Your task to perform on an android device: turn on bluetooth scan Image 0: 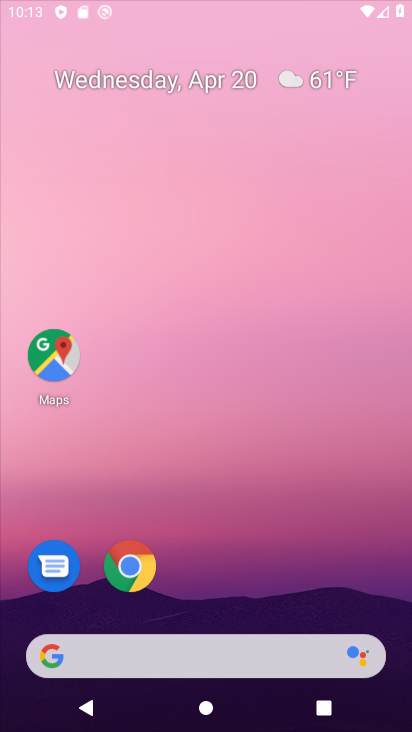
Step 0: drag from (270, 186) to (286, 55)
Your task to perform on an android device: turn on bluetooth scan Image 1: 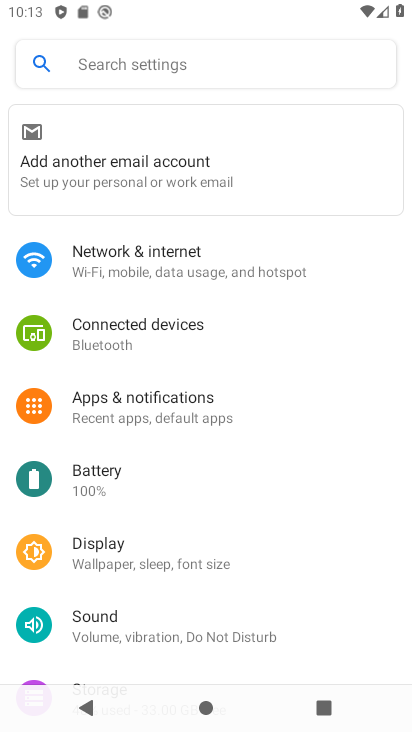
Step 1: click (146, 332)
Your task to perform on an android device: turn on bluetooth scan Image 2: 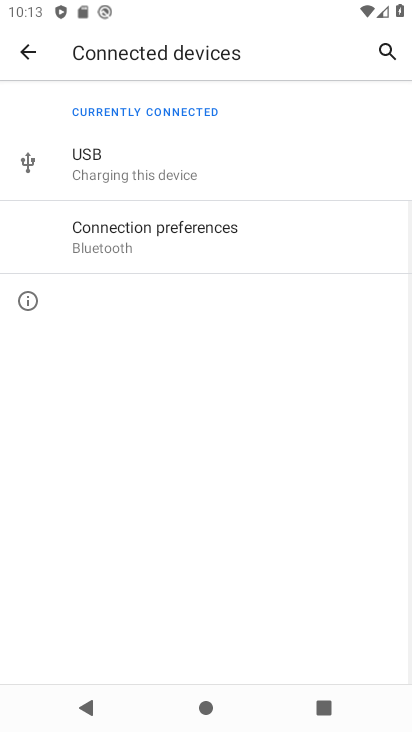
Step 2: click (120, 237)
Your task to perform on an android device: turn on bluetooth scan Image 3: 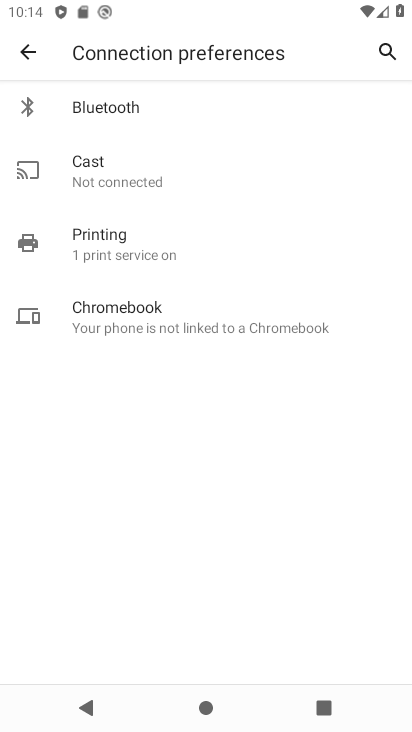
Step 3: click (115, 117)
Your task to perform on an android device: turn on bluetooth scan Image 4: 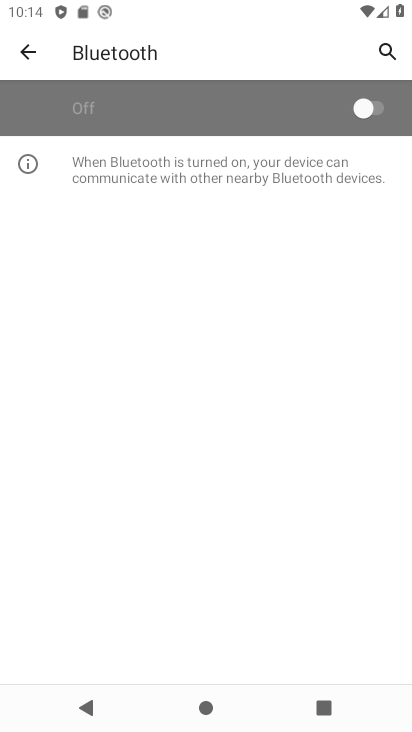
Step 4: click (380, 102)
Your task to perform on an android device: turn on bluetooth scan Image 5: 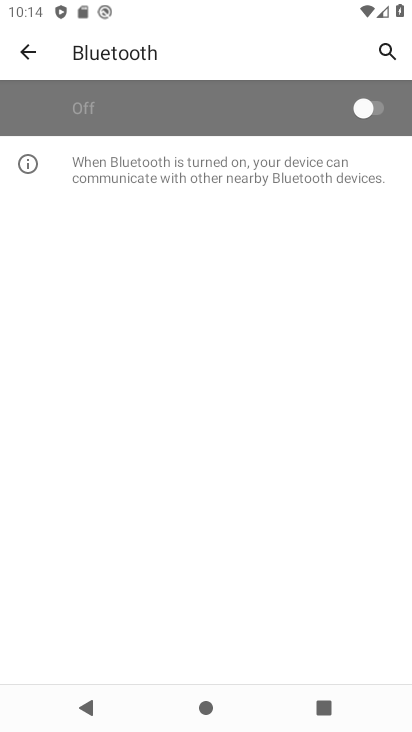
Step 5: task complete